Your task to perform on an android device: turn on data saver in the chrome app Image 0: 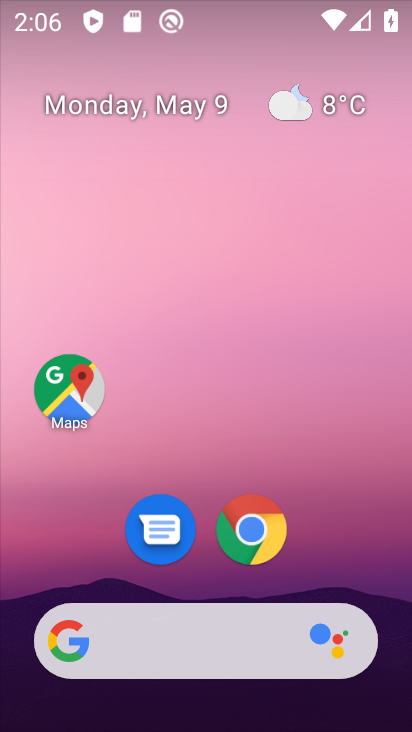
Step 0: click (237, 544)
Your task to perform on an android device: turn on data saver in the chrome app Image 1: 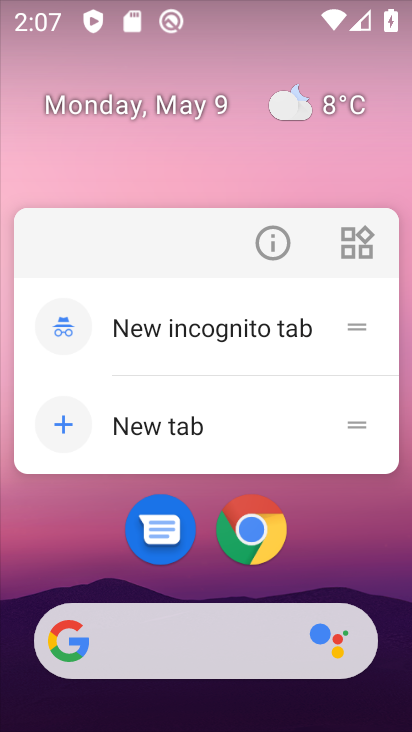
Step 1: click (255, 521)
Your task to perform on an android device: turn on data saver in the chrome app Image 2: 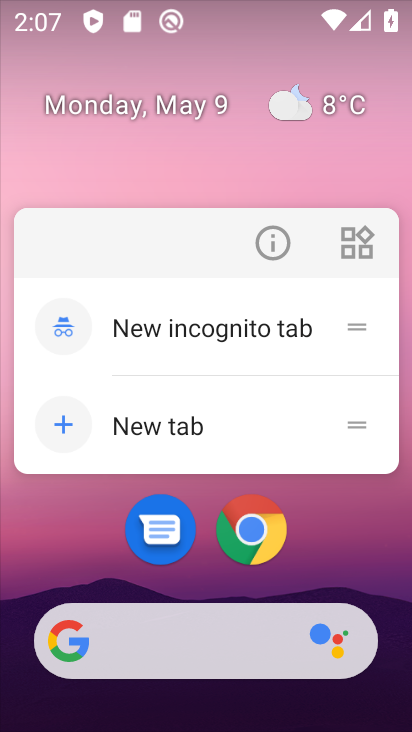
Step 2: click (264, 543)
Your task to perform on an android device: turn on data saver in the chrome app Image 3: 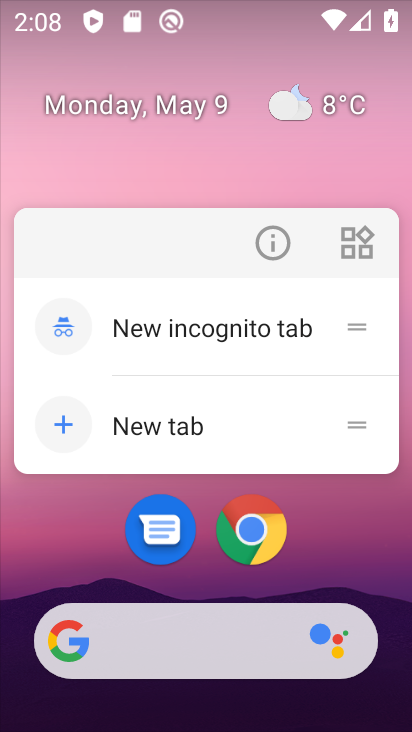
Step 3: click (256, 548)
Your task to perform on an android device: turn on data saver in the chrome app Image 4: 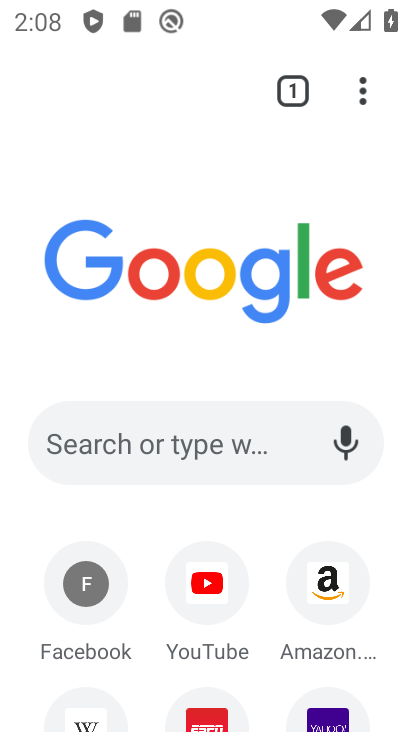
Step 4: click (369, 93)
Your task to perform on an android device: turn on data saver in the chrome app Image 5: 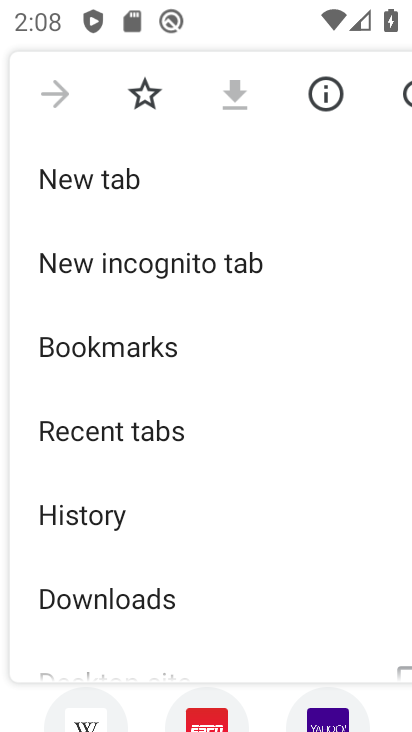
Step 5: drag from (221, 643) to (302, 215)
Your task to perform on an android device: turn on data saver in the chrome app Image 6: 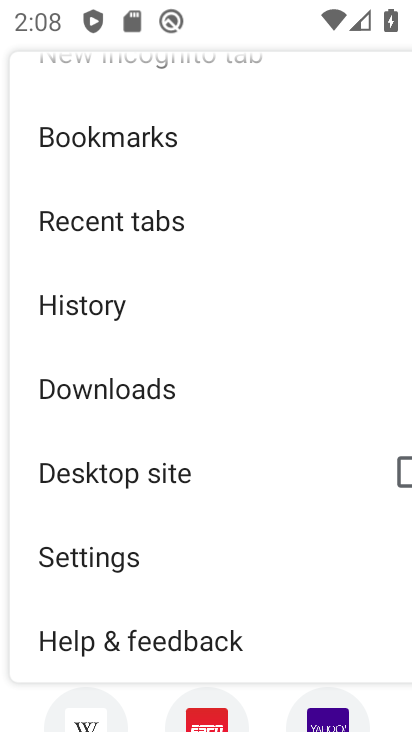
Step 6: click (86, 557)
Your task to perform on an android device: turn on data saver in the chrome app Image 7: 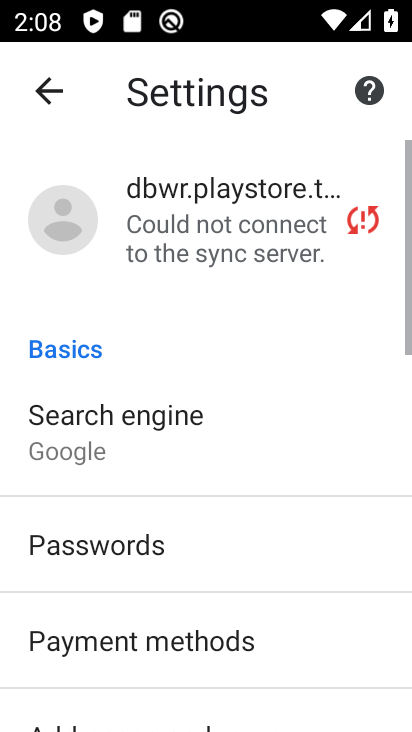
Step 7: drag from (219, 667) to (260, 172)
Your task to perform on an android device: turn on data saver in the chrome app Image 8: 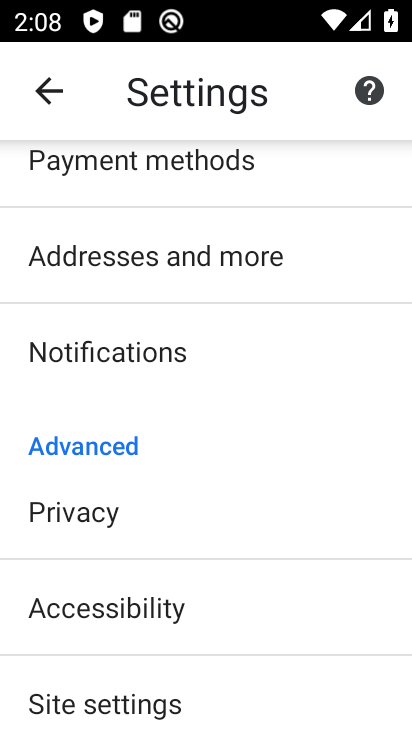
Step 8: drag from (155, 513) to (176, 122)
Your task to perform on an android device: turn on data saver in the chrome app Image 9: 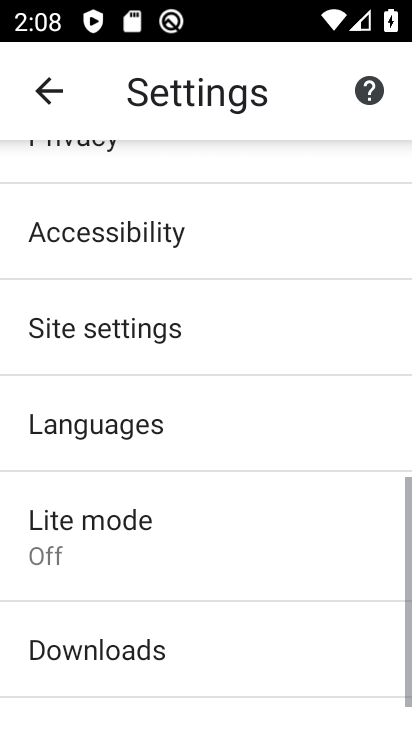
Step 9: click (136, 546)
Your task to perform on an android device: turn on data saver in the chrome app Image 10: 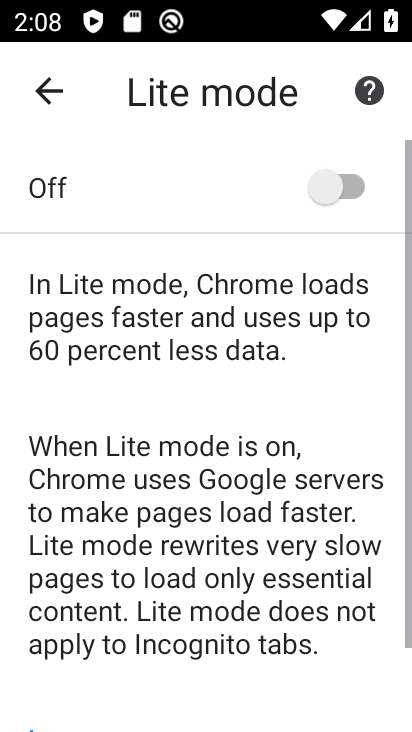
Step 10: click (317, 191)
Your task to perform on an android device: turn on data saver in the chrome app Image 11: 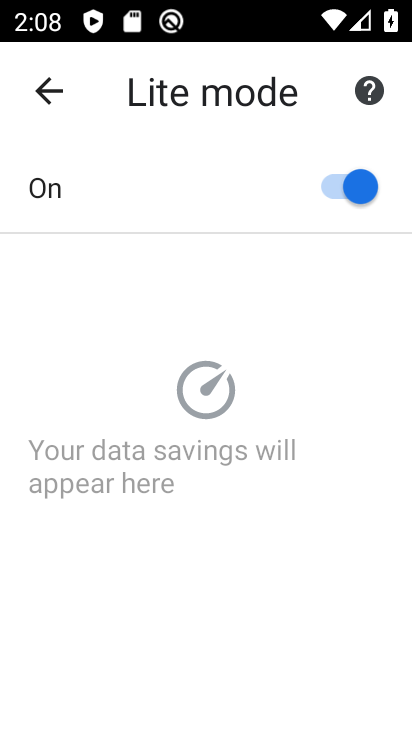
Step 11: task complete